Your task to perform on an android device: turn off data saver in the chrome app Image 0: 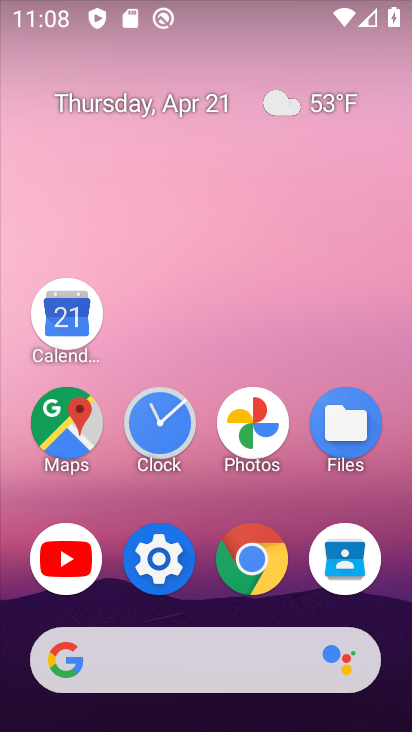
Step 0: click (245, 561)
Your task to perform on an android device: turn off data saver in the chrome app Image 1: 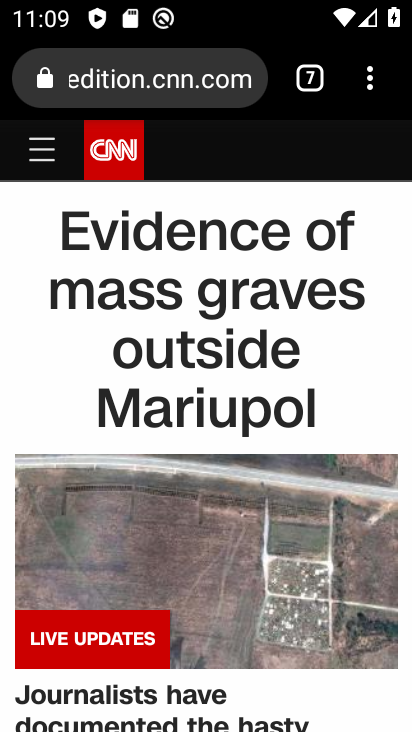
Step 1: click (373, 77)
Your task to perform on an android device: turn off data saver in the chrome app Image 2: 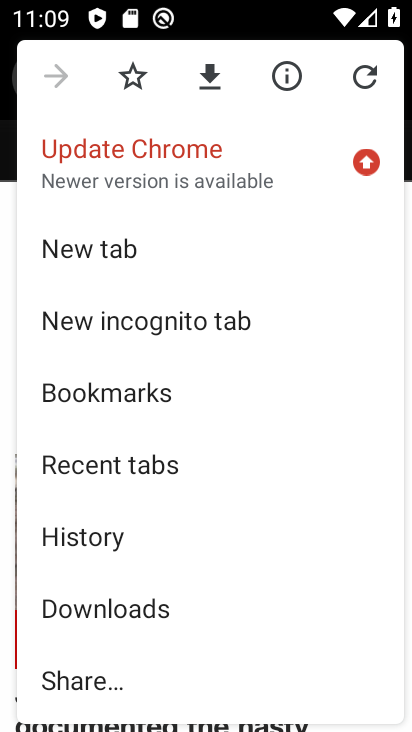
Step 2: drag from (283, 553) to (263, 184)
Your task to perform on an android device: turn off data saver in the chrome app Image 3: 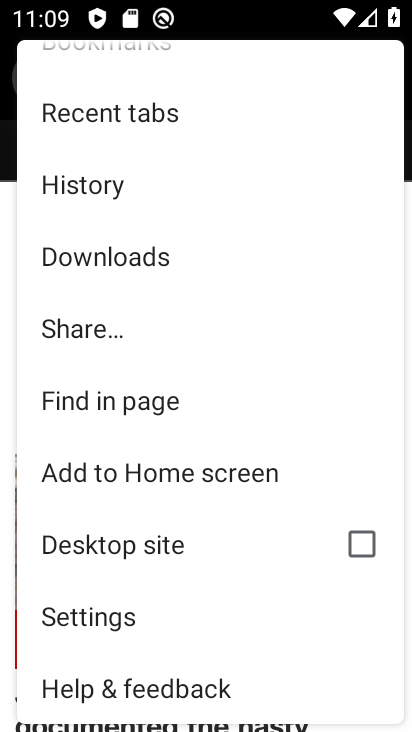
Step 3: click (107, 613)
Your task to perform on an android device: turn off data saver in the chrome app Image 4: 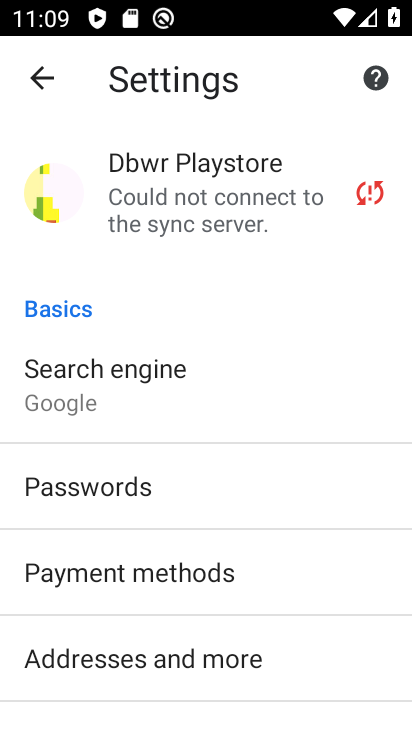
Step 4: drag from (288, 601) to (249, 297)
Your task to perform on an android device: turn off data saver in the chrome app Image 5: 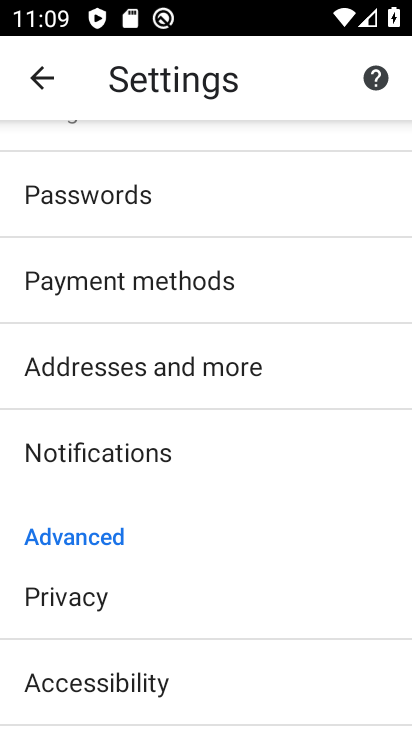
Step 5: drag from (262, 490) to (229, 139)
Your task to perform on an android device: turn off data saver in the chrome app Image 6: 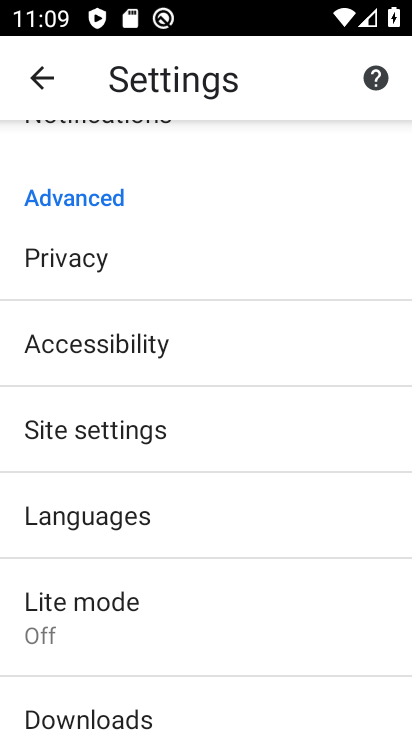
Step 6: click (86, 593)
Your task to perform on an android device: turn off data saver in the chrome app Image 7: 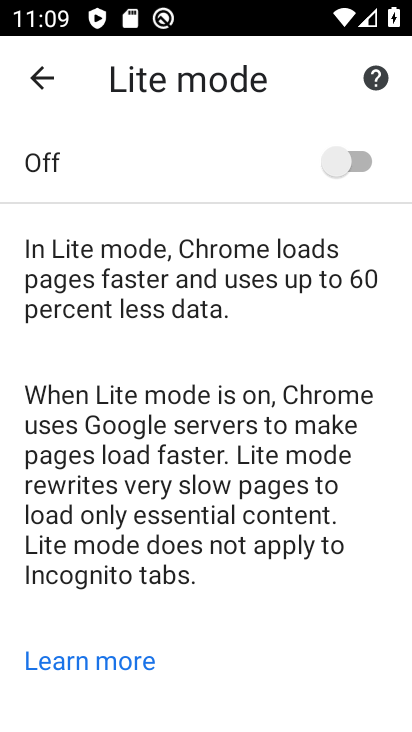
Step 7: task complete